Your task to perform on an android device: check out phone information Image 0: 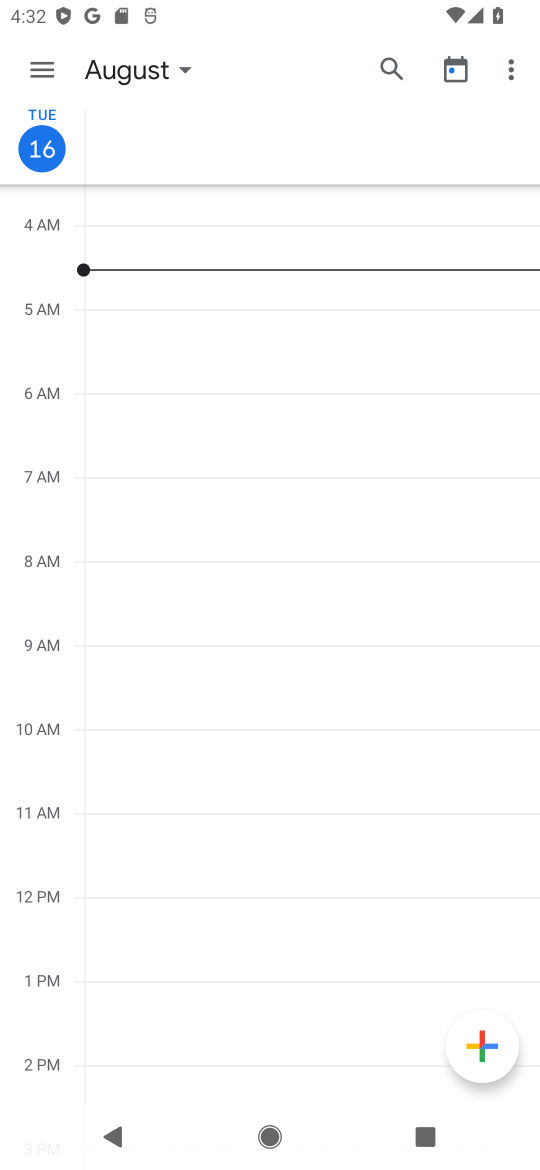
Step 0: press back button
Your task to perform on an android device: check out phone information Image 1: 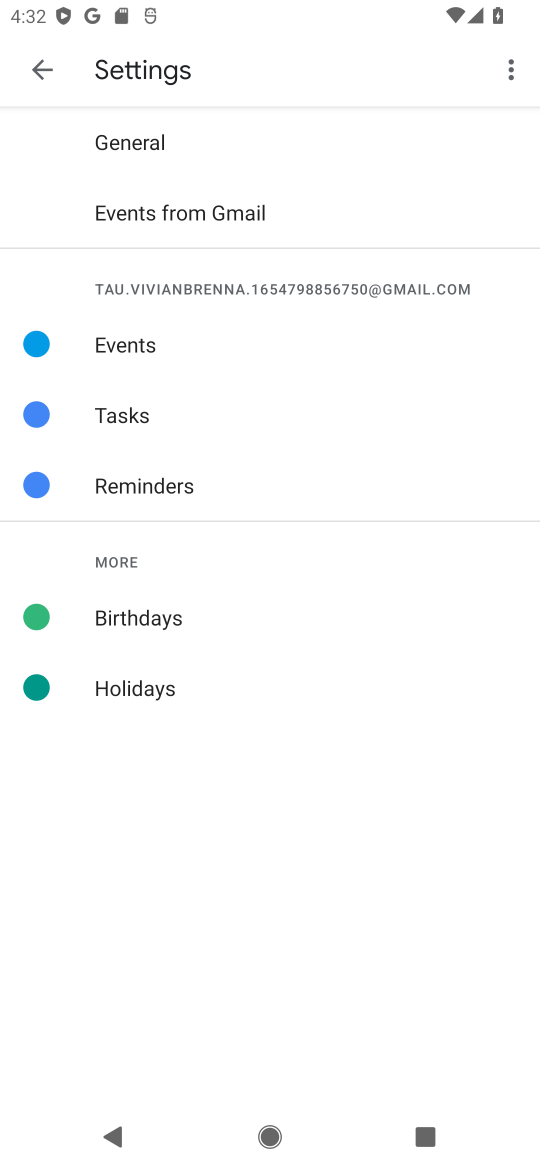
Step 1: press back button
Your task to perform on an android device: check out phone information Image 2: 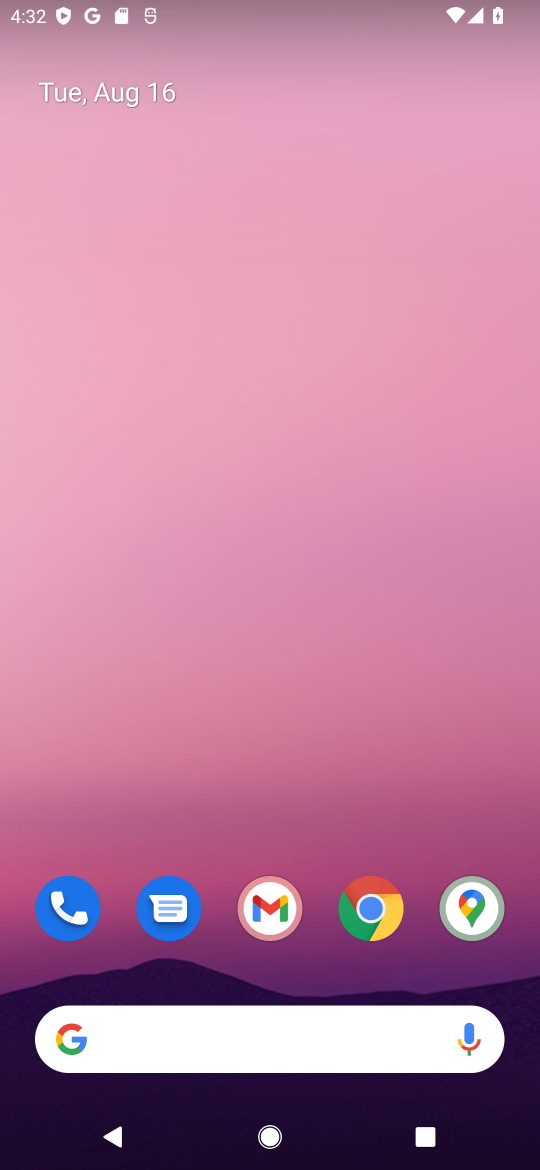
Step 2: drag from (260, 913) to (325, 40)
Your task to perform on an android device: check out phone information Image 3: 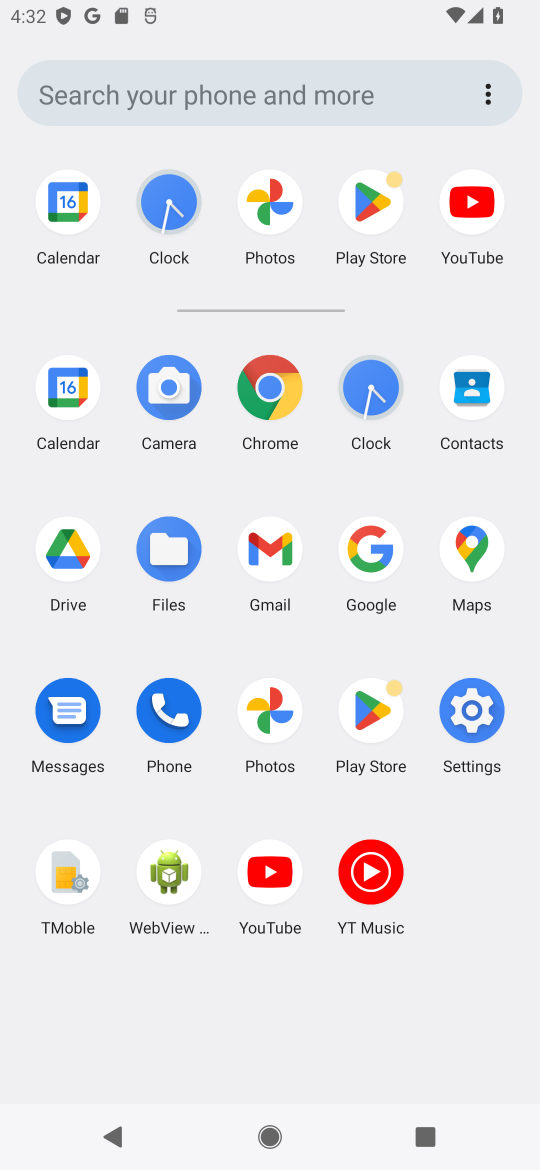
Step 3: click (462, 703)
Your task to perform on an android device: check out phone information Image 4: 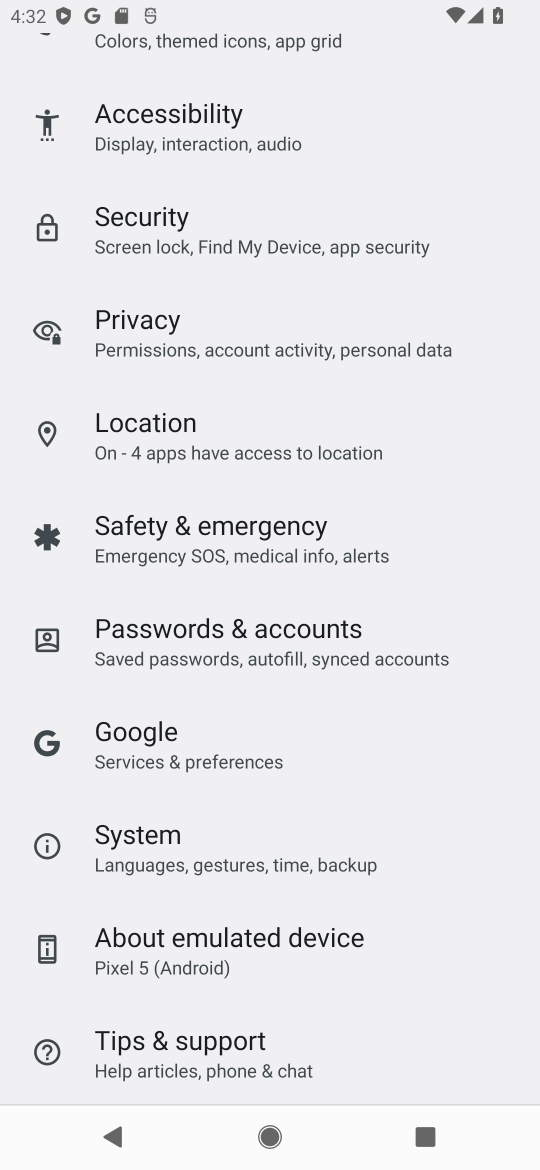
Step 4: drag from (190, 992) to (303, 2)
Your task to perform on an android device: check out phone information Image 5: 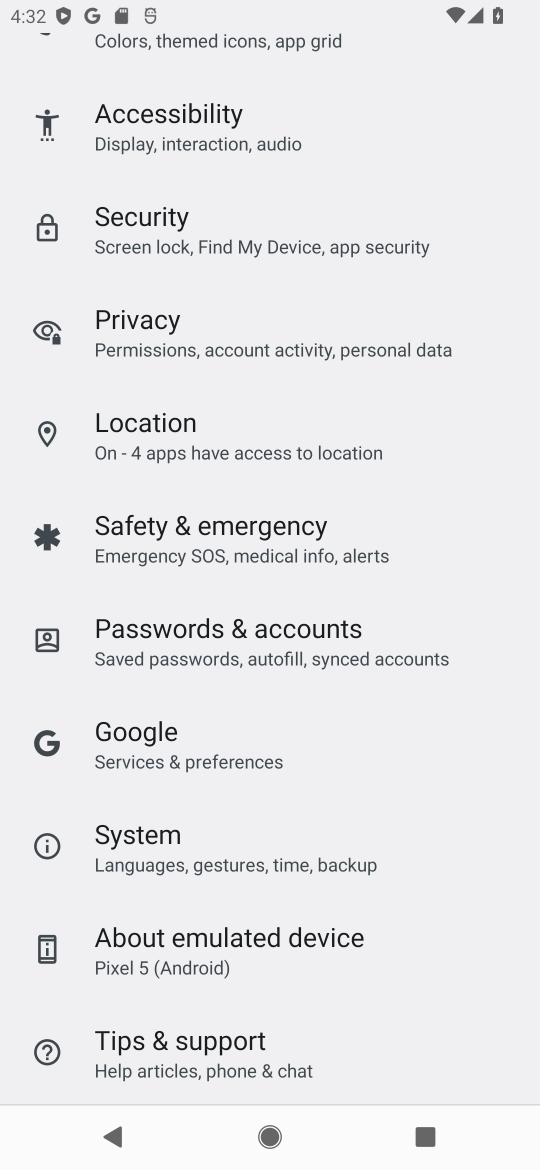
Step 5: drag from (215, 1053) to (466, 7)
Your task to perform on an android device: check out phone information Image 6: 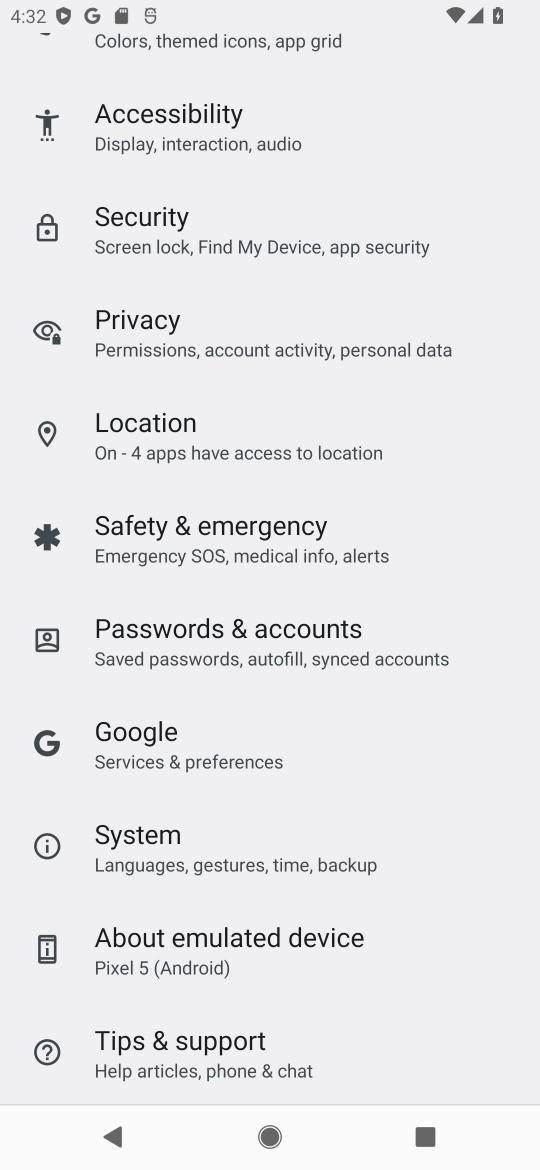
Step 6: click (225, 960)
Your task to perform on an android device: check out phone information Image 7: 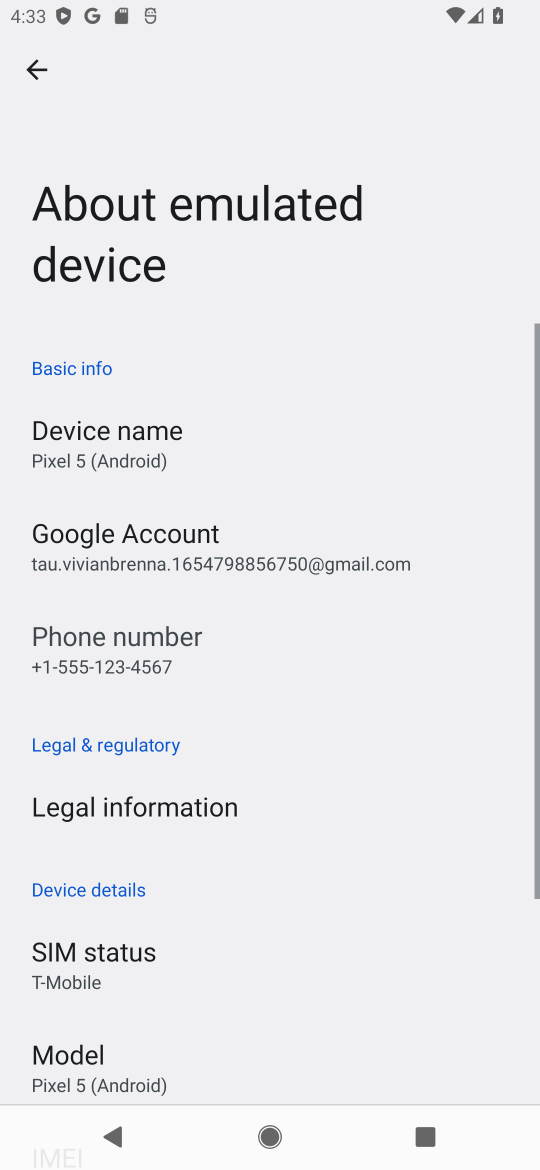
Step 7: task complete